Your task to perform on an android device: Search for Italian restaurants on Maps Image 0: 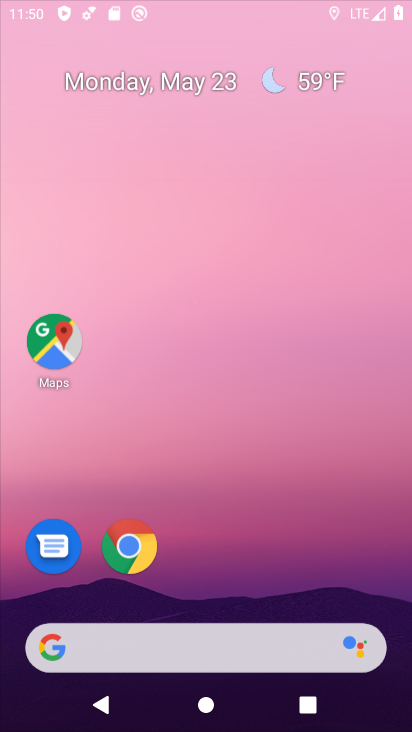
Step 0: click (317, 57)
Your task to perform on an android device: Search for Italian restaurants on Maps Image 1: 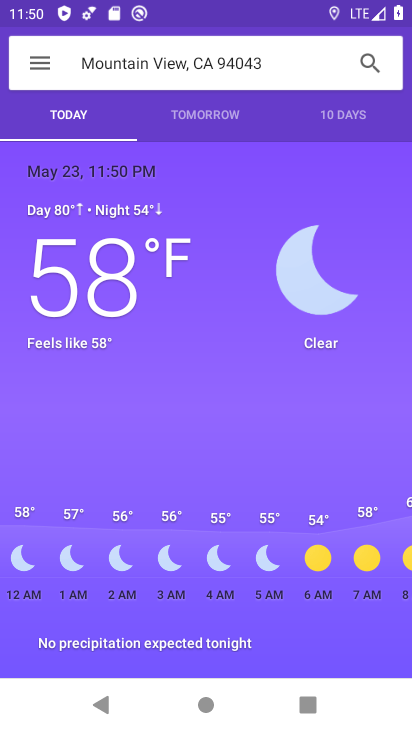
Step 1: drag from (142, 593) to (244, 272)
Your task to perform on an android device: Search for Italian restaurants on Maps Image 2: 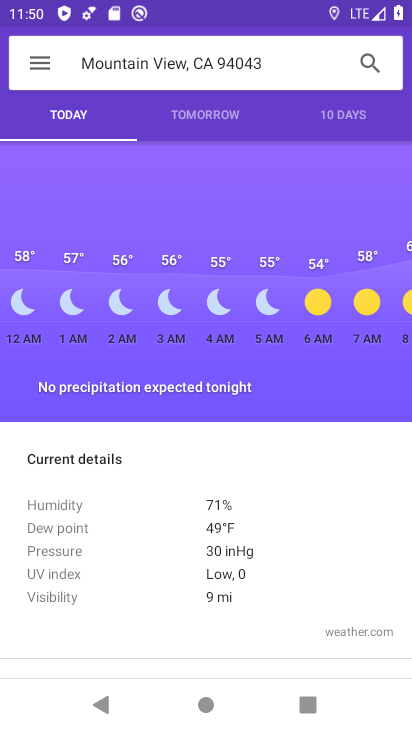
Step 2: press home button
Your task to perform on an android device: Search for Italian restaurants on Maps Image 3: 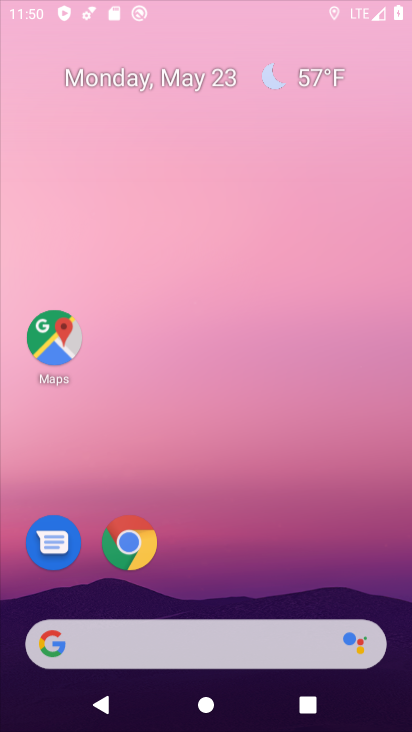
Step 3: drag from (229, 610) to (395, 91)
Your task to perform on an android device: Search for Italian restaurants on Maps Image 4: 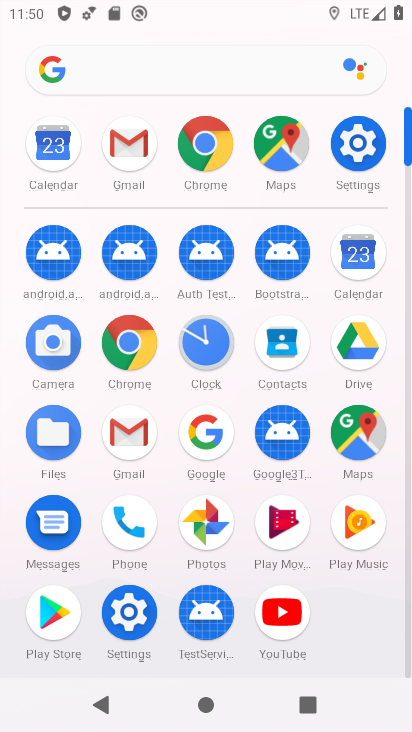
Step 4: click (359, 421)
Your task to perform on an android device: Search for Italian restaurants on Maps Image 5: 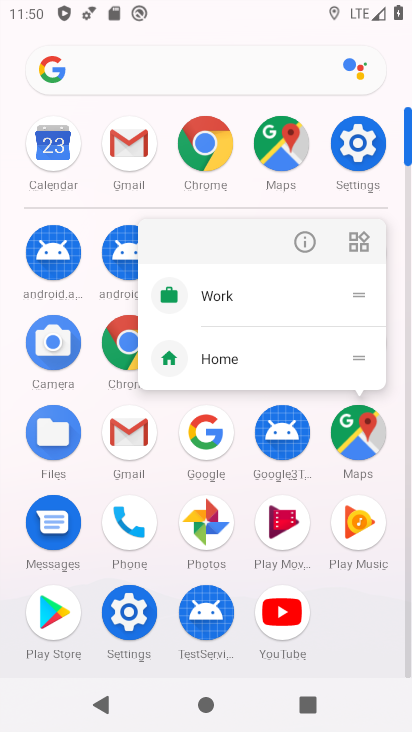
Step 5: click (296, 233)
Your task to perform on an android device: Search for Italian restaurants on Maps Image 6: 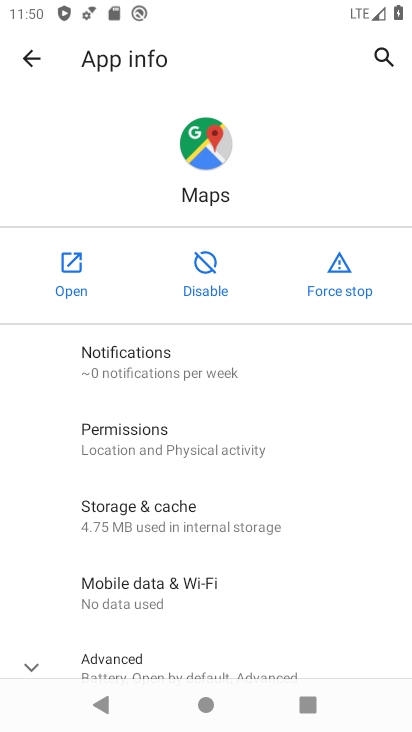
Step 6: click (65, 280)
Your task to perform on an android device: Search for Italian restaurants on Maps Image 7: 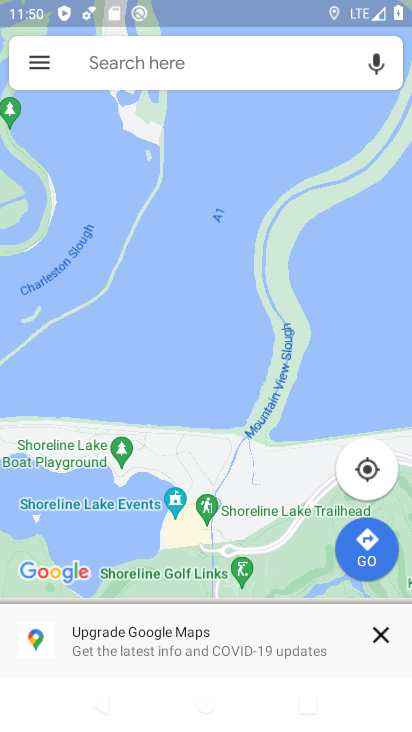
Step 7: click (173, 47)
Your task to perform on an android device: Search for Italian restaurants on Maps Image 8: 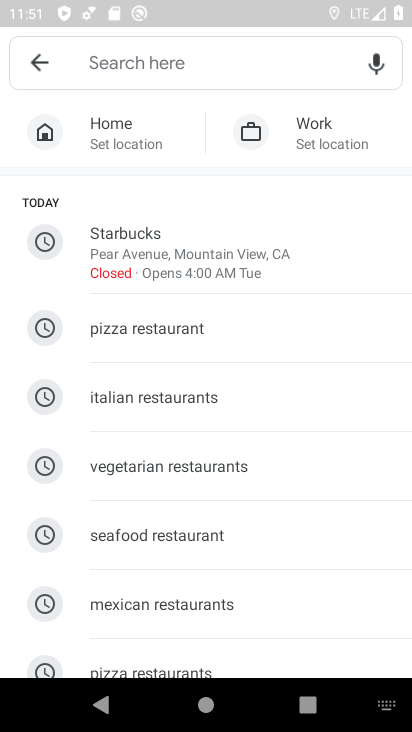
Step 8: click (172, 394)
Your task to perform on an android device: Search for Italian restaurants on Maps Image 9: 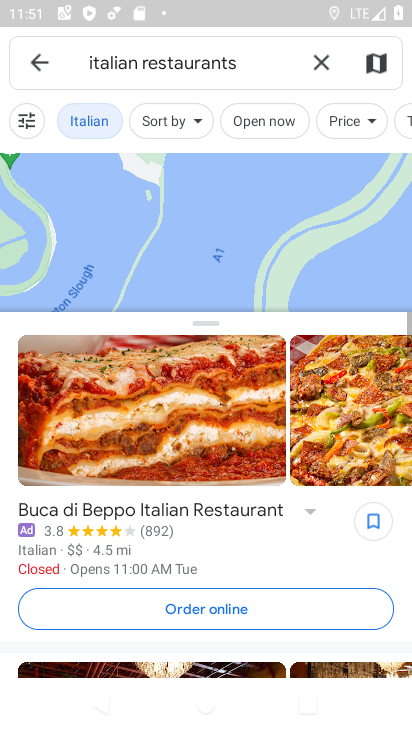
Step 9: task complete